Your task to perform on an android device: clear all cookies in the chrome app Image 0: 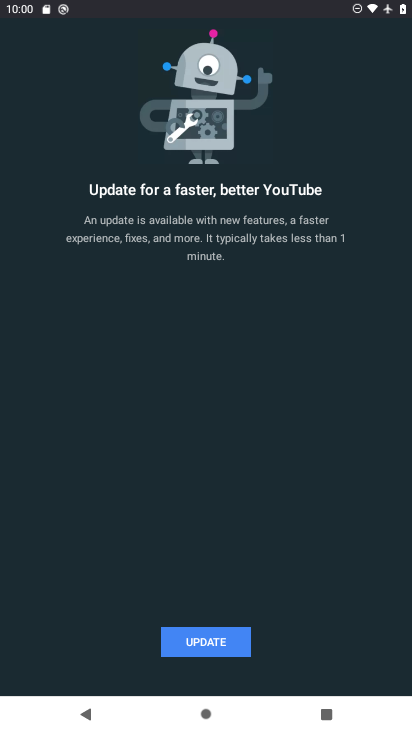
Step 0: press back button
Your task to perform on an android device: clear all cookies in the chrome app Image 1: 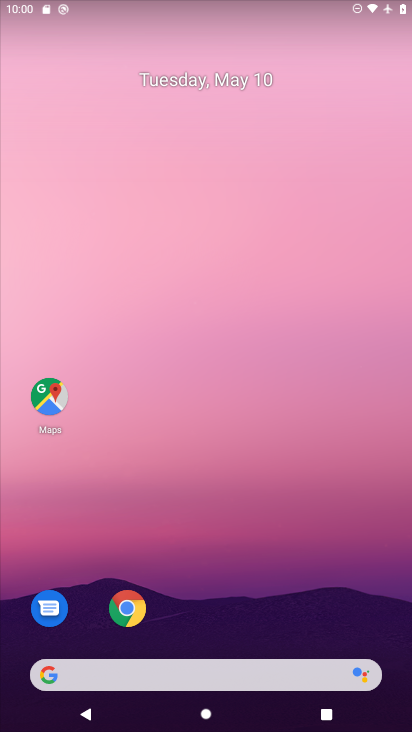
Step 1: drag from (274, 578) to (273, 270)
Your task to perform on an android device: clear all cookies in the chrome app Image 2: 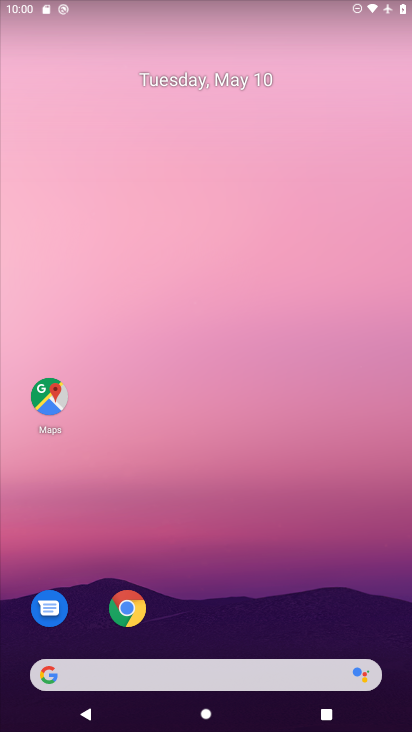
Step 2: drag from (223, 616) to (249, 287)
Your task to perform on an android device: clear all cookies in the chrome app Image 3: 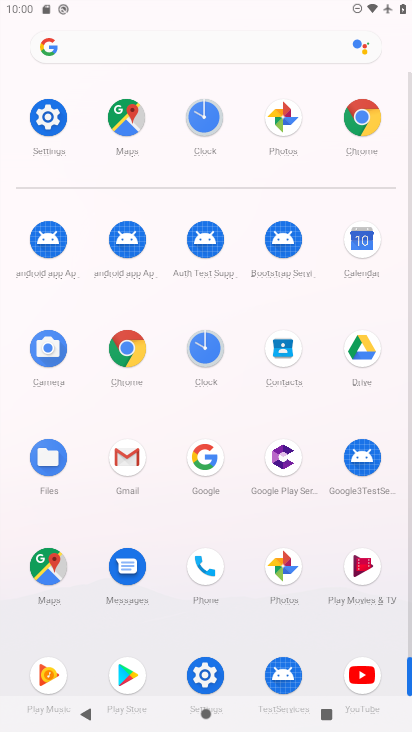
Step 3: click (355, 123)
Your task to perform on an android device: clear all cookies in the chrome app Image 4: 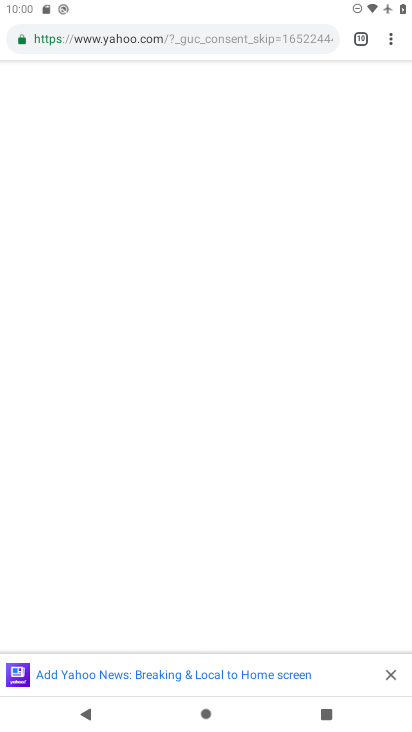
Step 4: click (376, 34)
Your task to perform on an android device: clear all cookies in the chrome app Image 5: 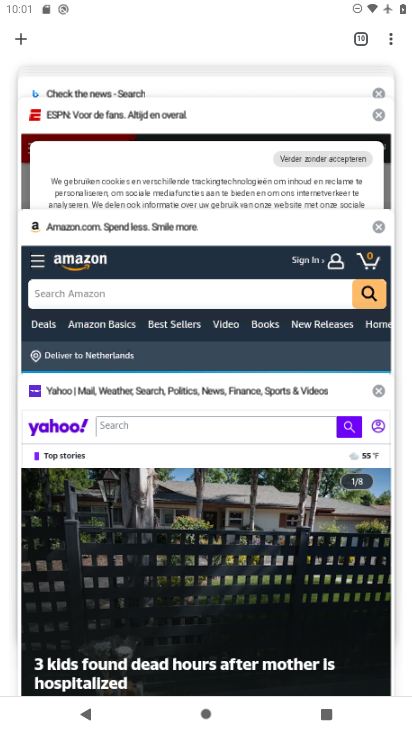
Step 5: click (378, 39)
Your task to perform on an android device: clear all cookies in the chrome app Image 6: 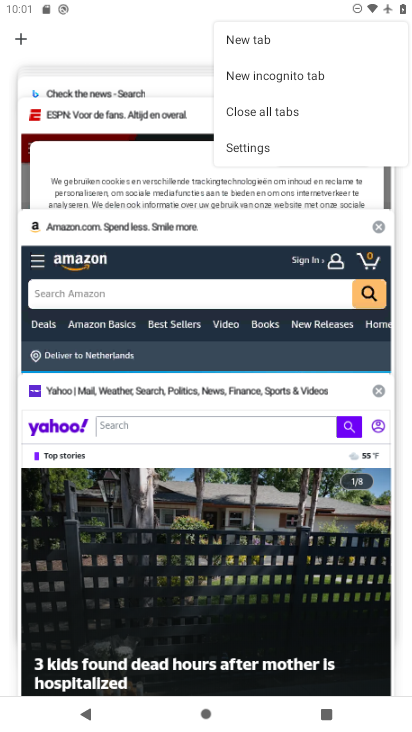
Step 6: click (254, 143)
Your task to perform on an android device: clear all cookies in the chrome app Image 7: 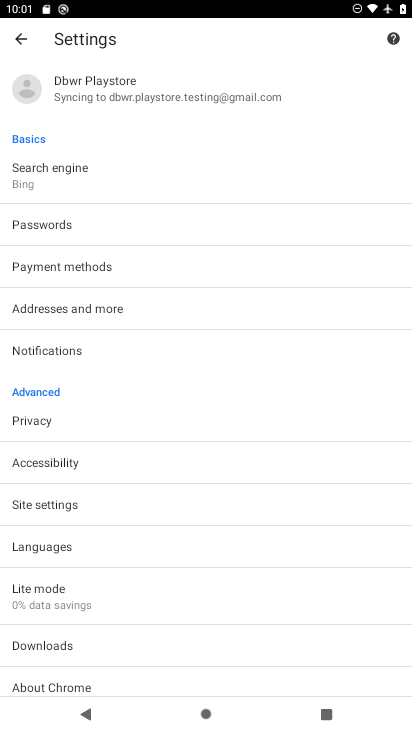
Step 7: click (55, 421)
Your task to perform on an android device: clear all cookies in the chrome app Image 8: 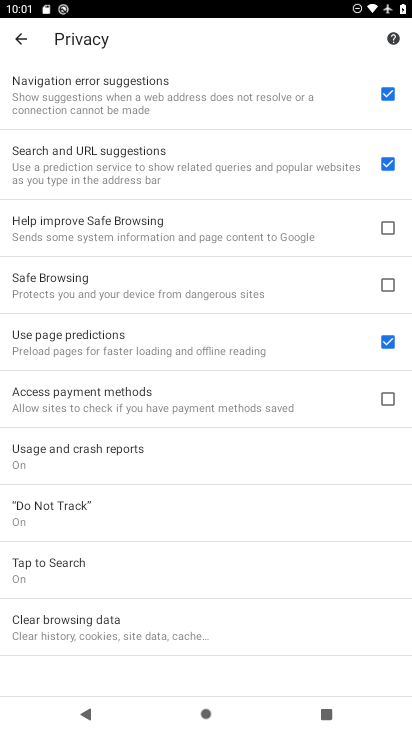
Step 8: click (201, 616)
Your task to perform on an android device: clear all cookies in the chrome app Image 9: 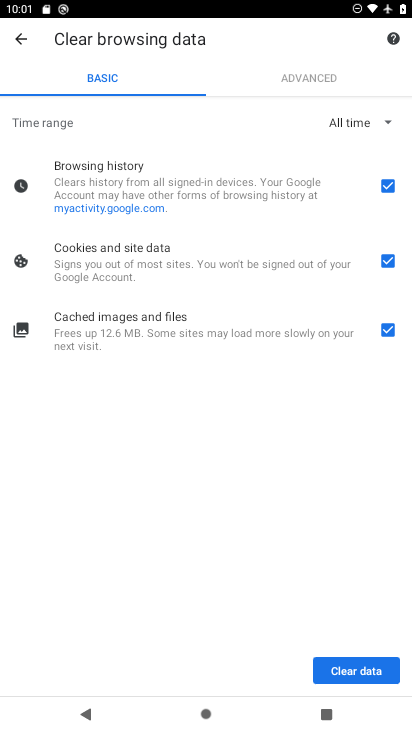
Step 9: click (356, 672)
Your task to perform on an android device: clear all cookies in the chrome app Image 10: 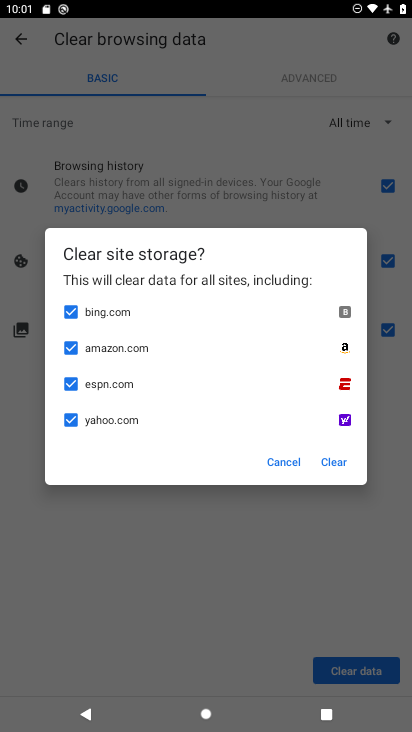
Step 10: click (331, 465)
Your task to perform on an android device: clear all cookies in the chrome app Image 11: 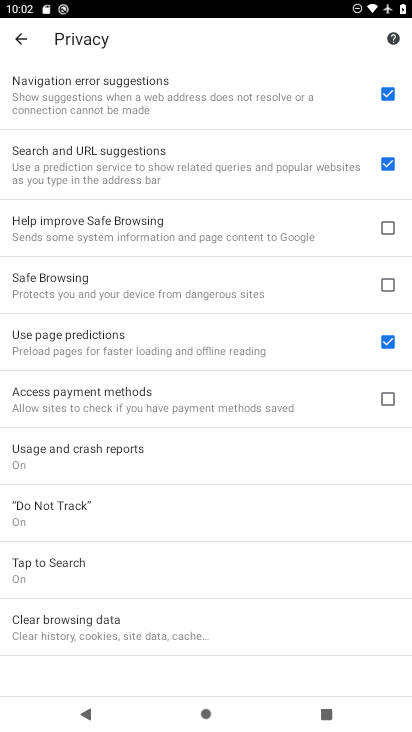
Step 11: task complete